Your task to perform on an android device: open a new tab in the chrome app Image 0: 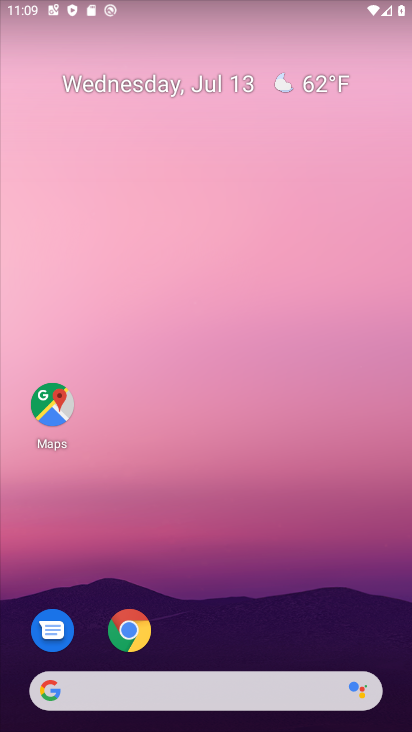
Step 0: drag from (263, 544) to (297, 121)
Your task to perform on an android device: open a new tab in the chrome app Image 1: 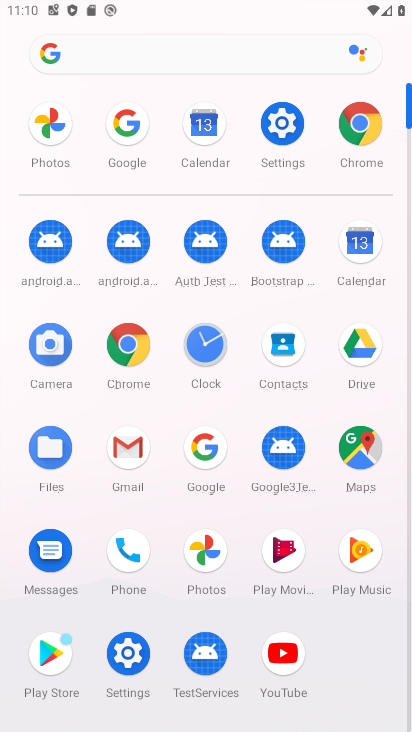
Step 1: click (354, 134)
Your task to perform on an android device: open a new tab in the chrome app Image 2: 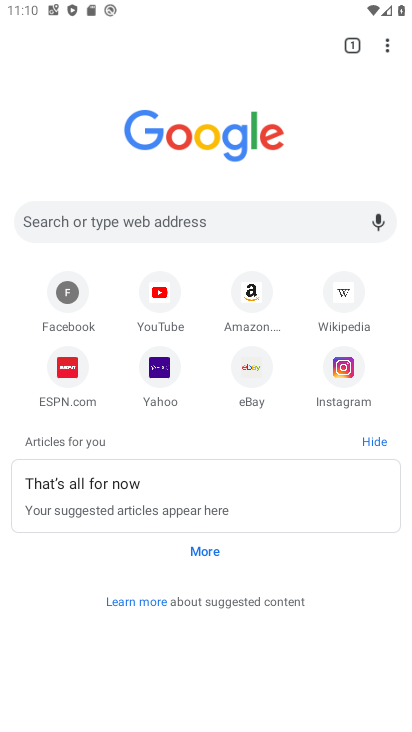
Step 2: task complete